Your task to perform on an android device: Open settings on Google Maps Image 0: 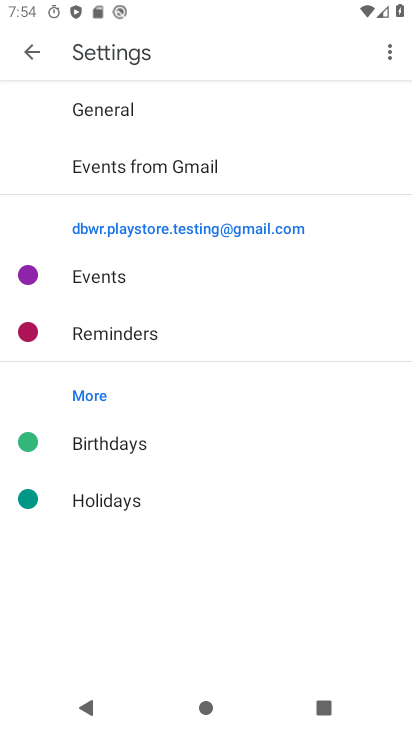
Step 0: press home button
Your task to perform on an android device: Open settings on Google Maps Image 1: 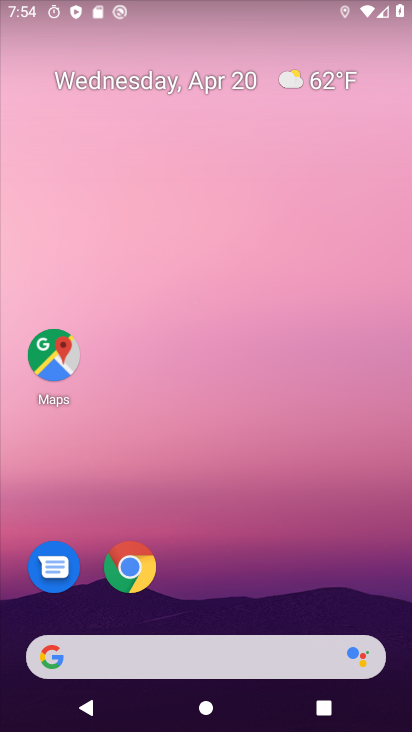
Step 1: click (55, 361)
Your task to perform on an android device: Open settings on Google Maps Image 2: 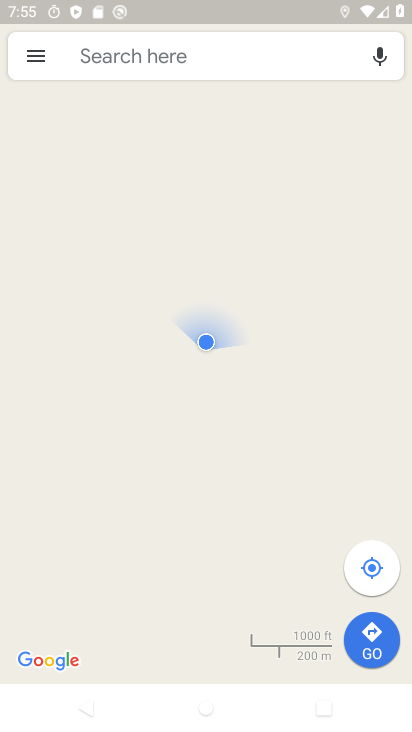
Step 2: click (36, 57)
Your task to perform on an android device: Open settings on Google Maps Image 3: 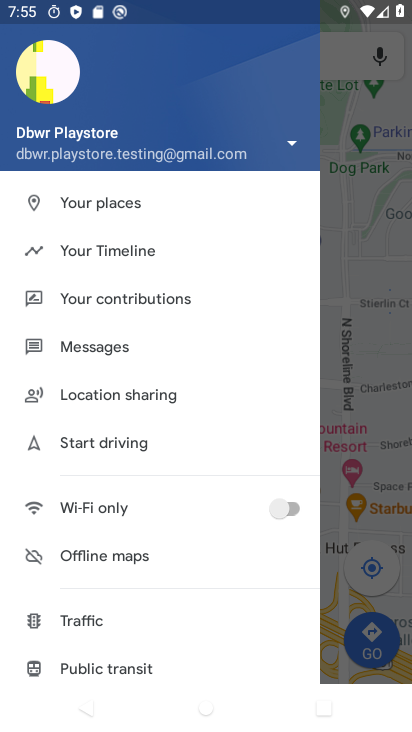
Step 3: drag from (136, 619) to (163, 261)
Your task to perform on an android device: Open settings on Google Maps Image 4: 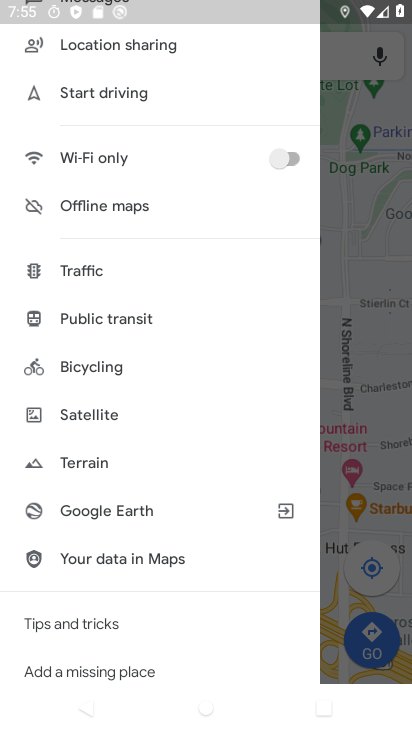
Step 4: drag from (167, 612) to (170, 395)
Your task to perform on an android device: Open settings on Google Maps Image 5: 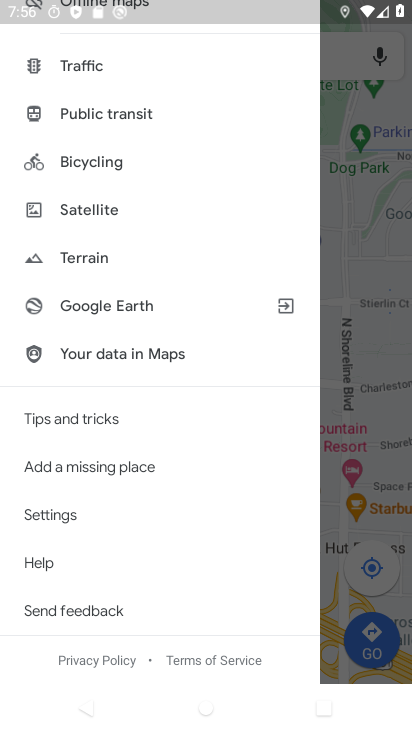
Step 5: click (37, 517)
Your task to perform on an android device: Open settings on Google Maps Image 6: 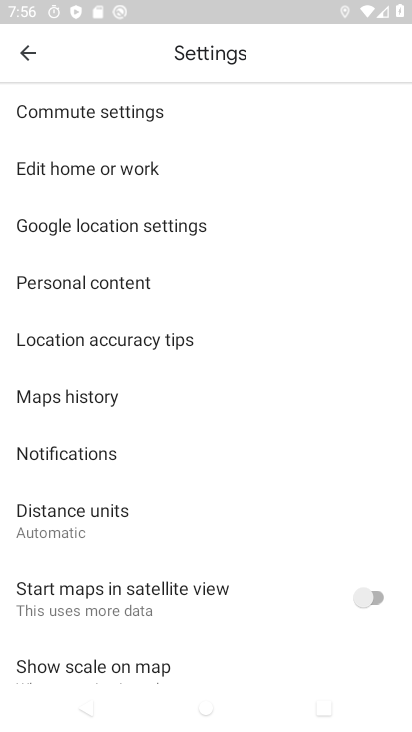
Step 6: task complete